Your task to perform on an android device: What's on my calendar tomorrow? Image 0: 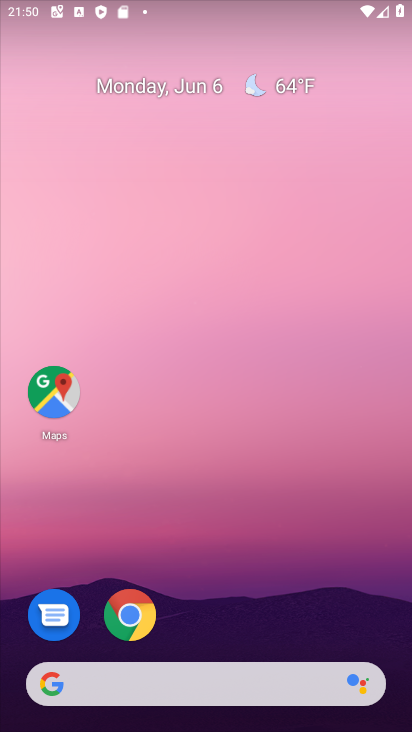
Step 0: drag from (388, 673) to (304, 147)
Your task to perform on an android device: What's on my calendar tomorrow? Image 1: 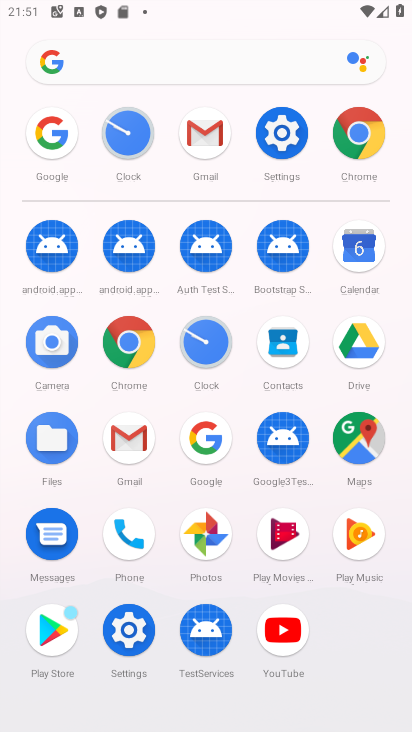
Step 1: click (356, 250)
Your task to perform on an android device: What's on my calendar tomorrow? Image 2: 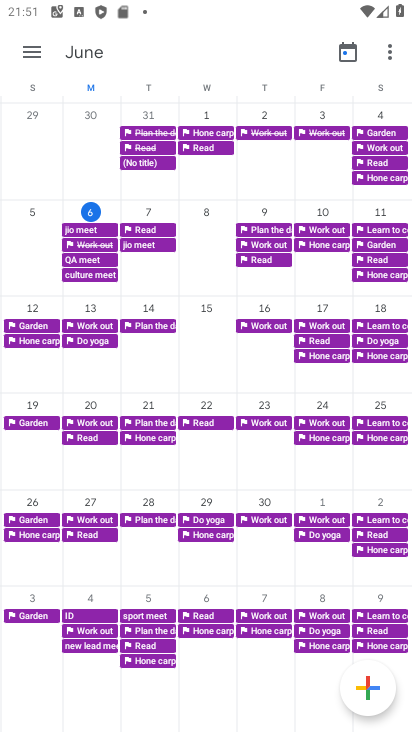
Step 2: click (106, 45)
Your task to perform on an android device: What's on my calendar tomorrow? Image 3: 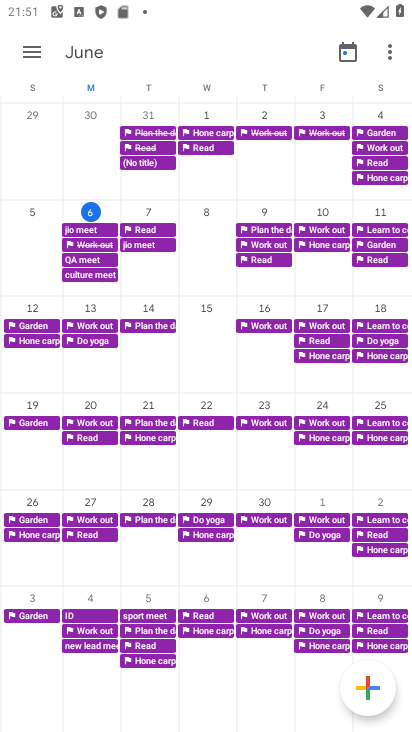
Step 3: click (81, 51)
Your task to perform on an android device: What's on my calendar tomorrow? Image 4: 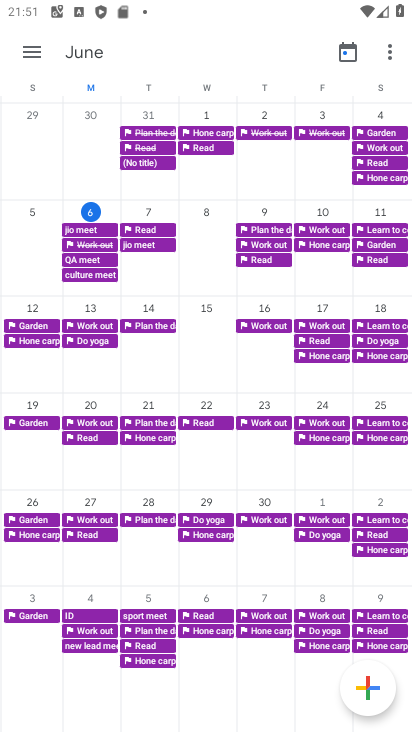
Step 4: click (30, 46)
Your task to perform on an android device: What's on my calendar tomorrow? Image 5: 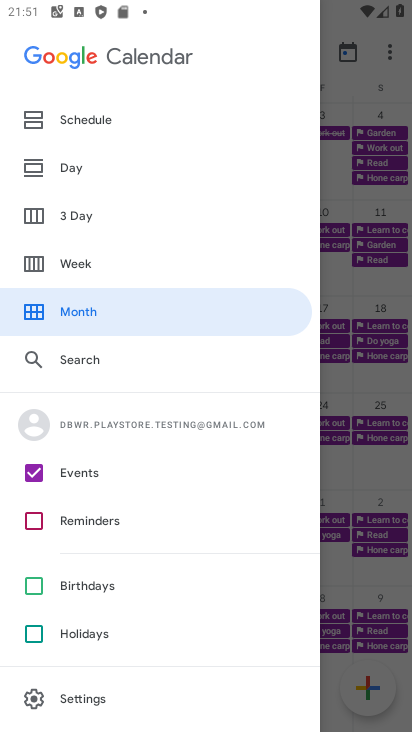
Step 5: click (50, 168)
Your task to perform on an android device: What's on my calendar tomorrow? Image 6: 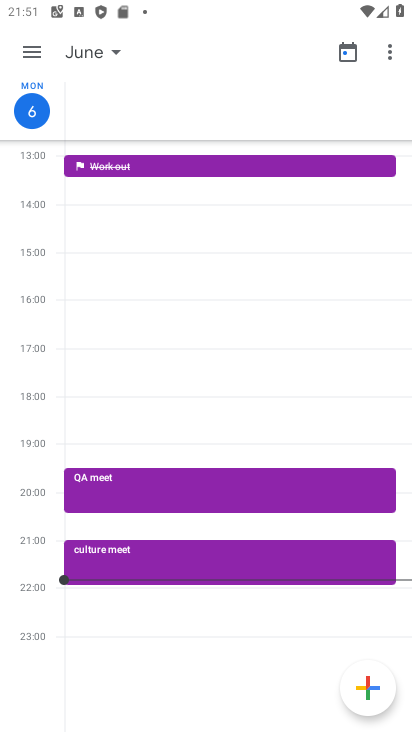
Step 6: click (106, 47)
Your task to perform on an android device: What's on my calendar tomorrow? Image 7: 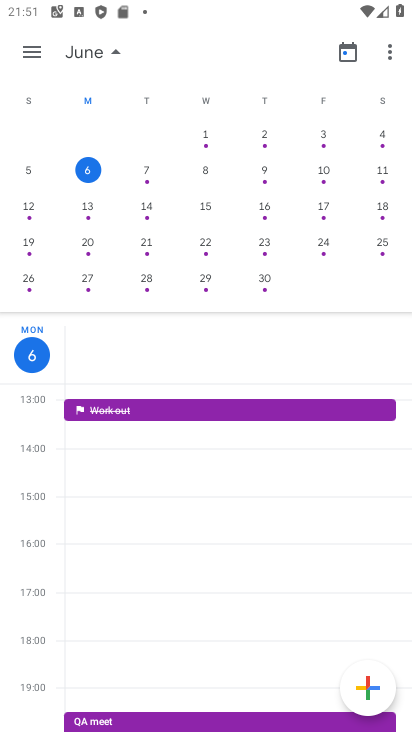
Step 7: click (142, 174)
Your task to perform on an android device: What's on my calendar tomorrow? Image 8: 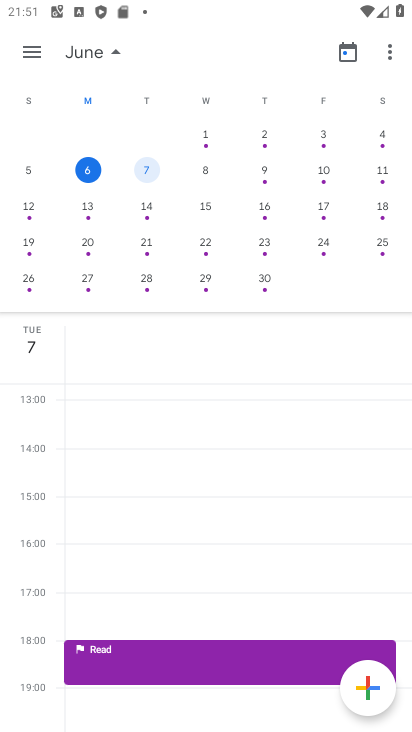
Step 8: task complete